Your task to perform on an android device: change keyboard looks Image 0: 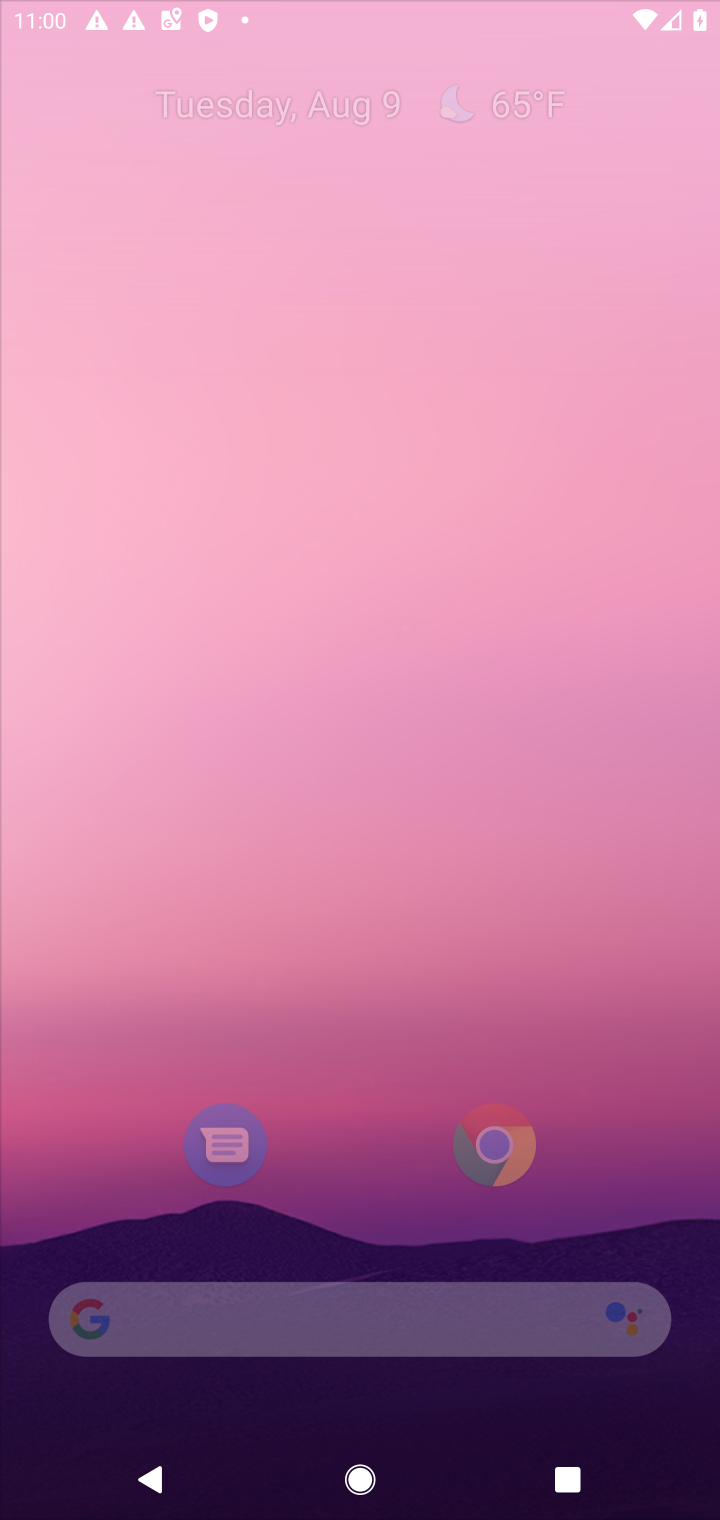
Step 0: press home button
Your task to perform on an android device: change keyboard looks Image 1: 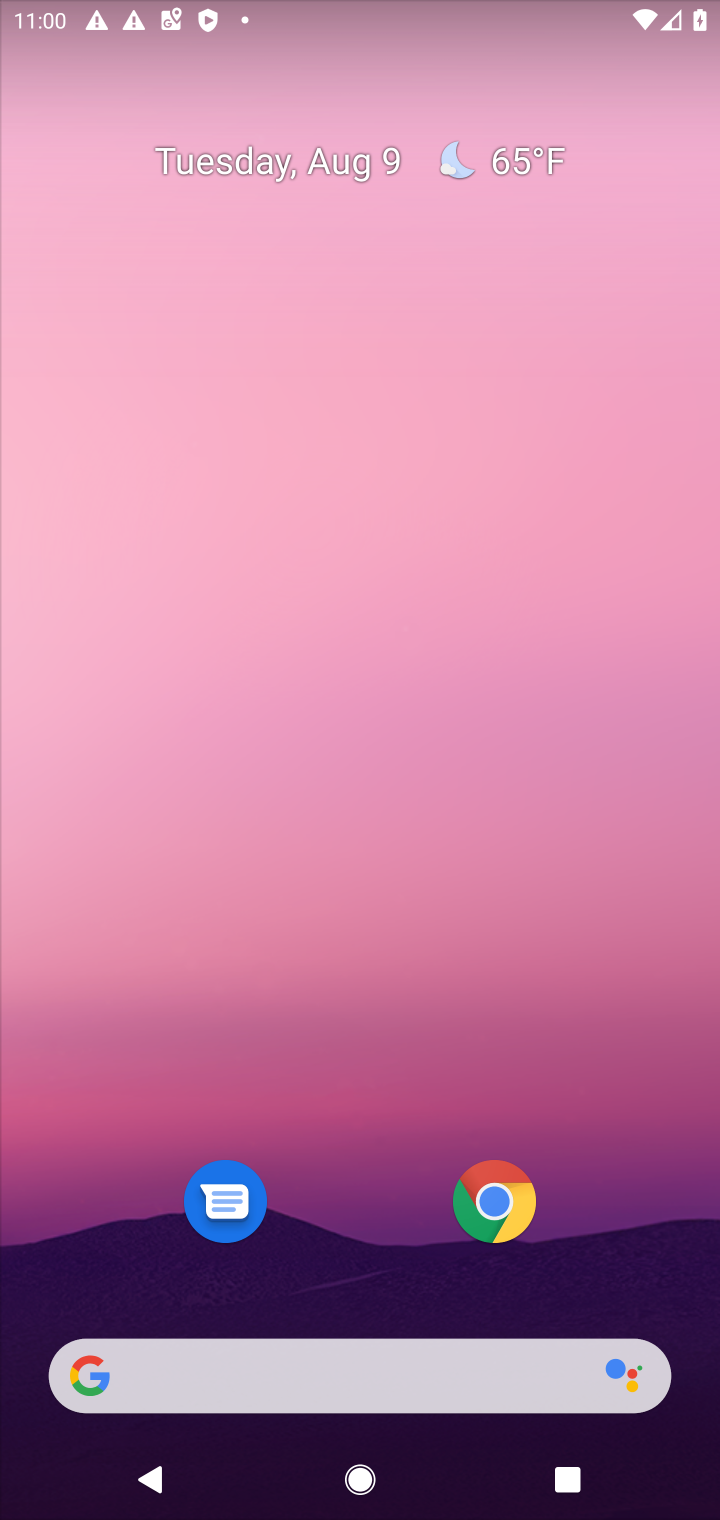
Step 1: drag from (413, 578) to (433, 256)
Your task to perform on an android device: change keyboard looks Image 2: 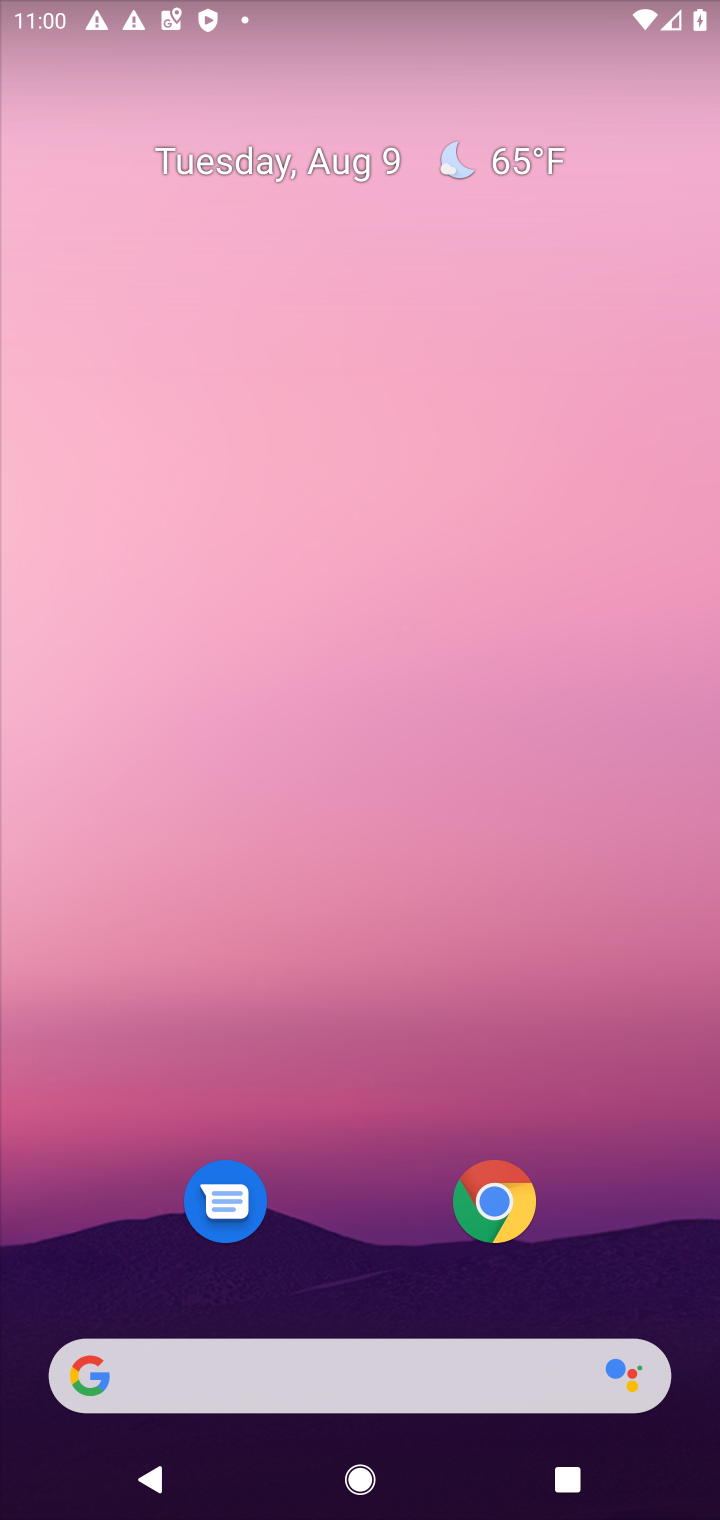
Step 2: drag from (326, 1179) to (517, 9)
Your task to perform on an android device: change keyboard looks Image 3: 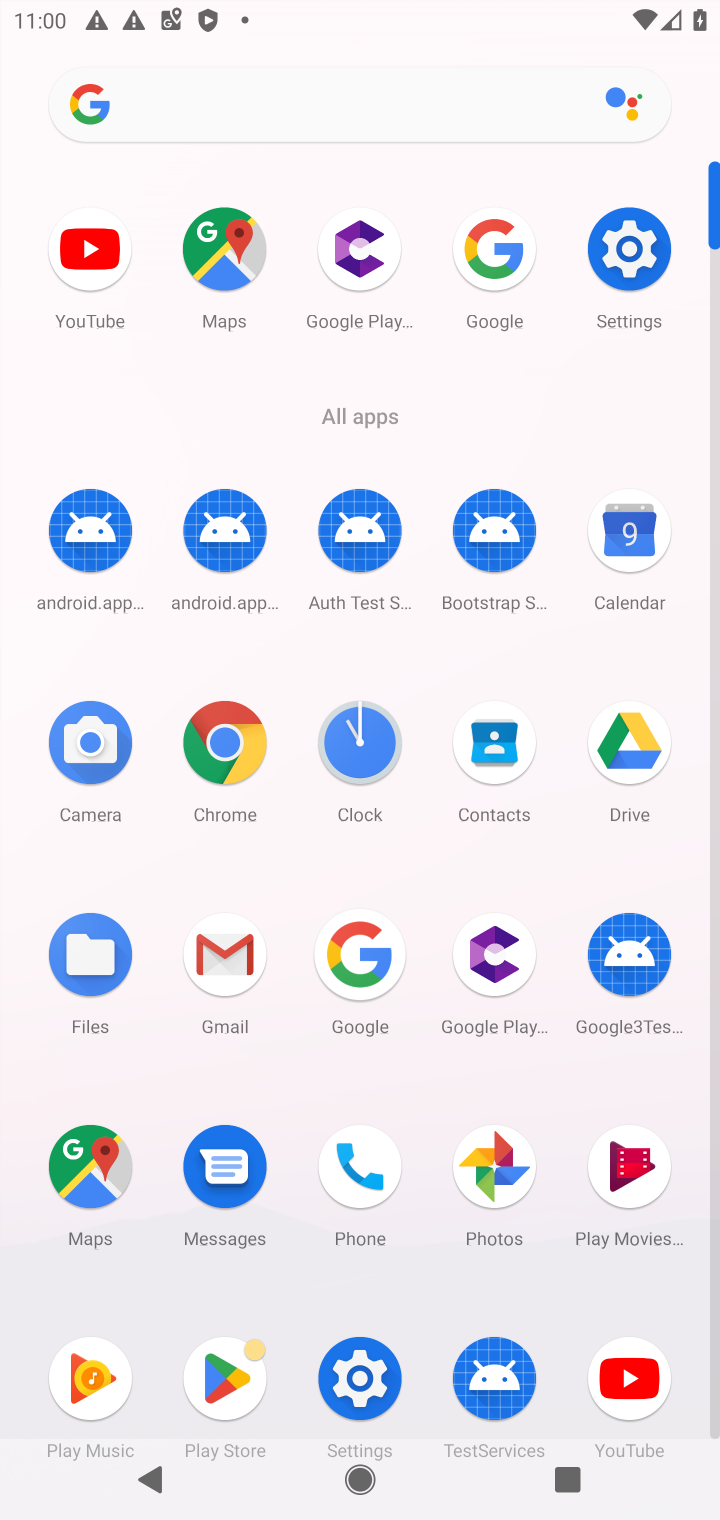
Step 3: click (643, 229)
Your task to perform on an android device: change keyboard looks Image 4: 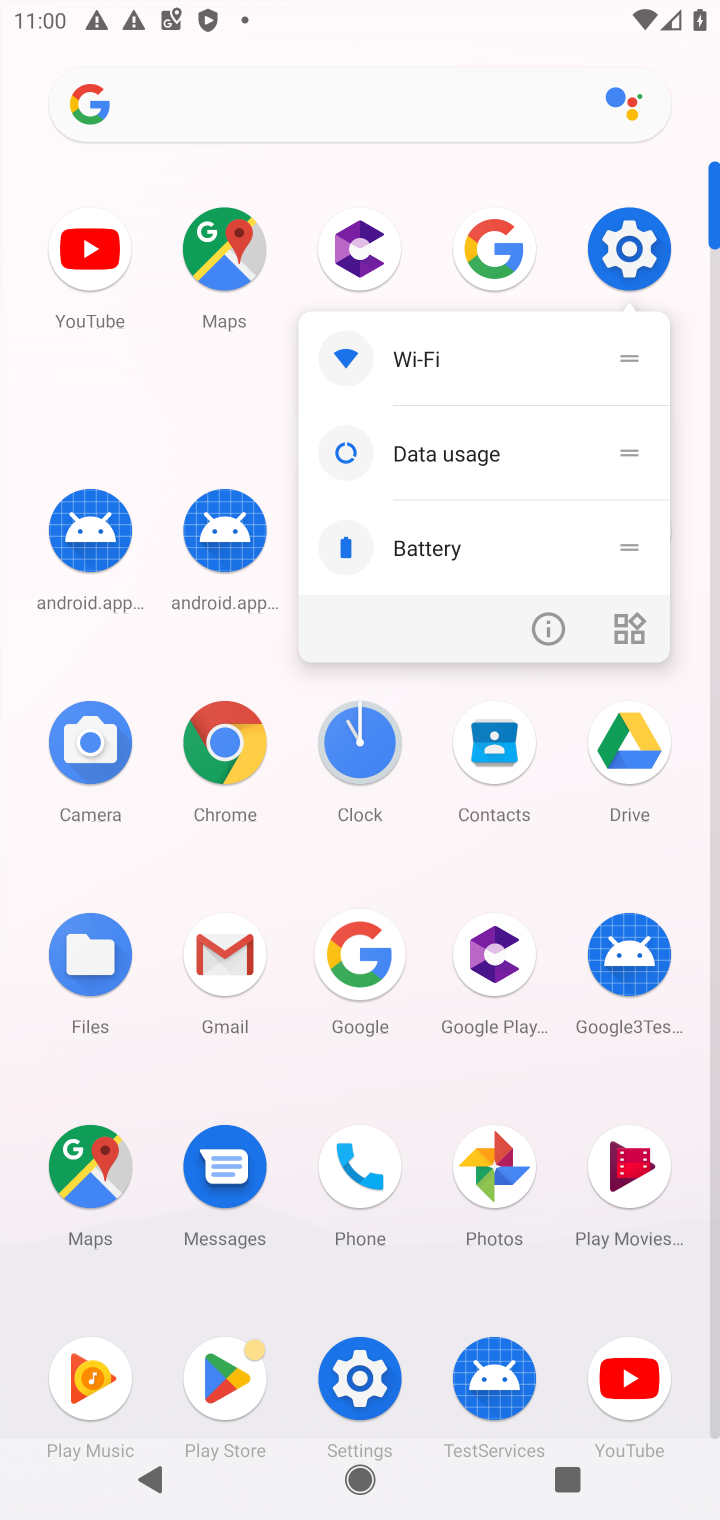
Step 4: click (621, 231)
Your task to perform on an android device: change keyboard looks Image 5: 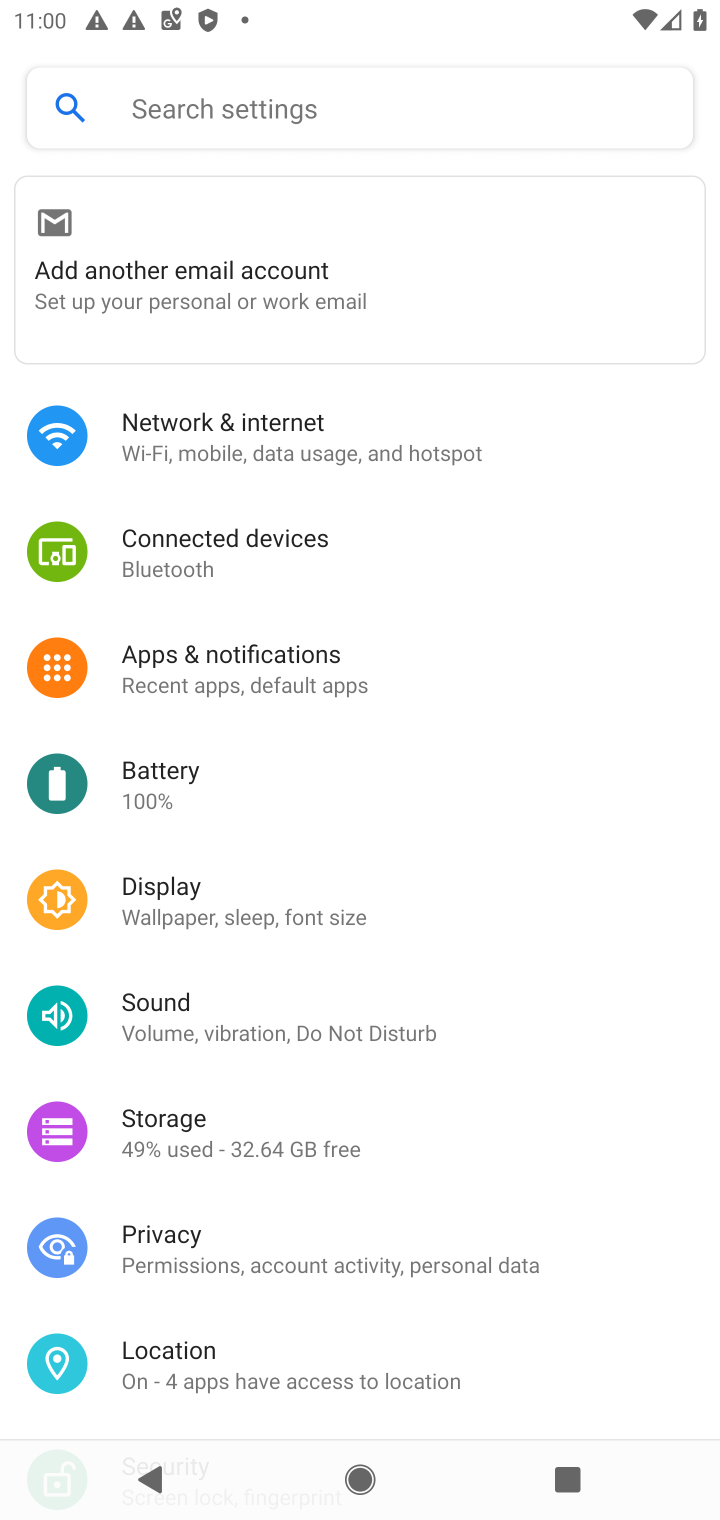
Step 5: drag from (175, 1303) to (297, 607)
Your task to perform on an android device: change keyboard looks Image 6: 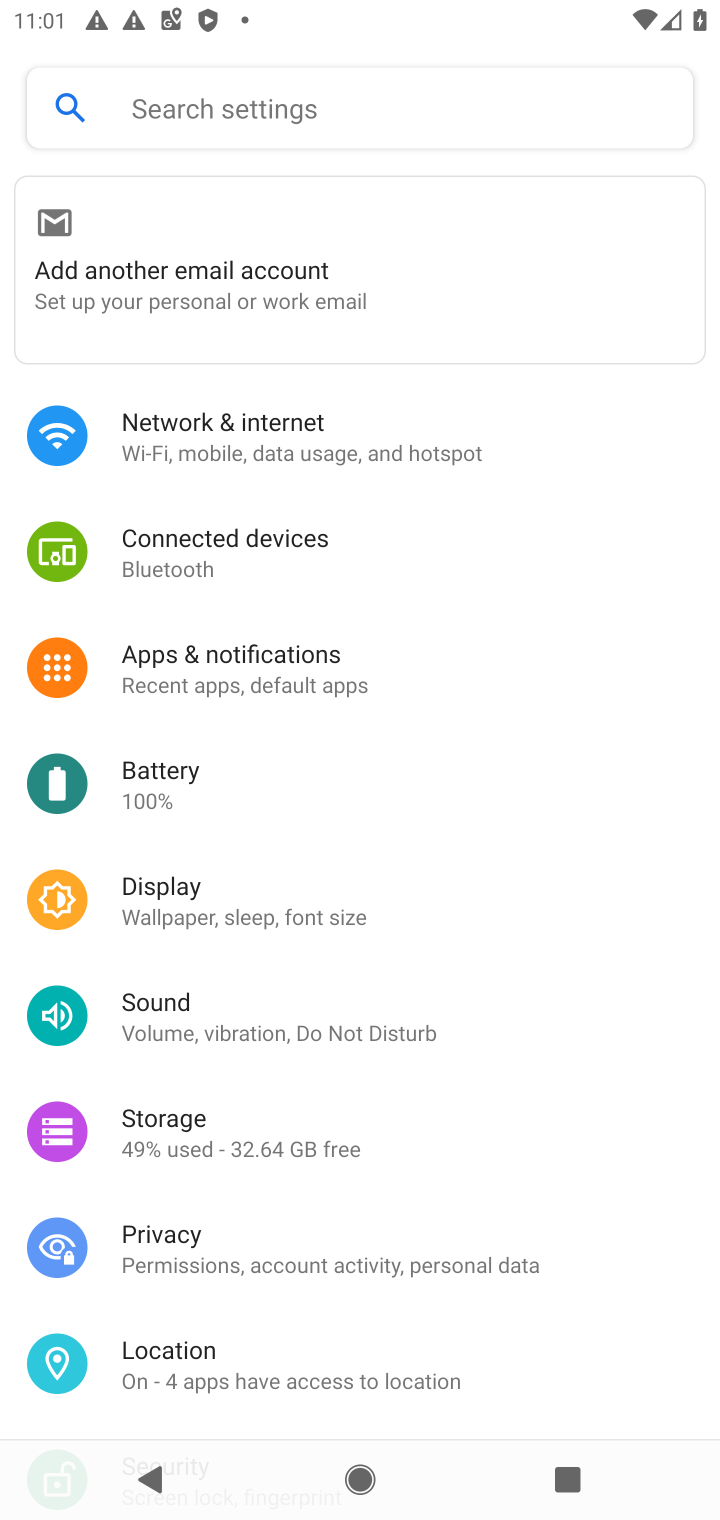
Step 6: drag from (248, 1326) to (316, 550)
Your task to perform on an android device: change keyboard looks Image 7: 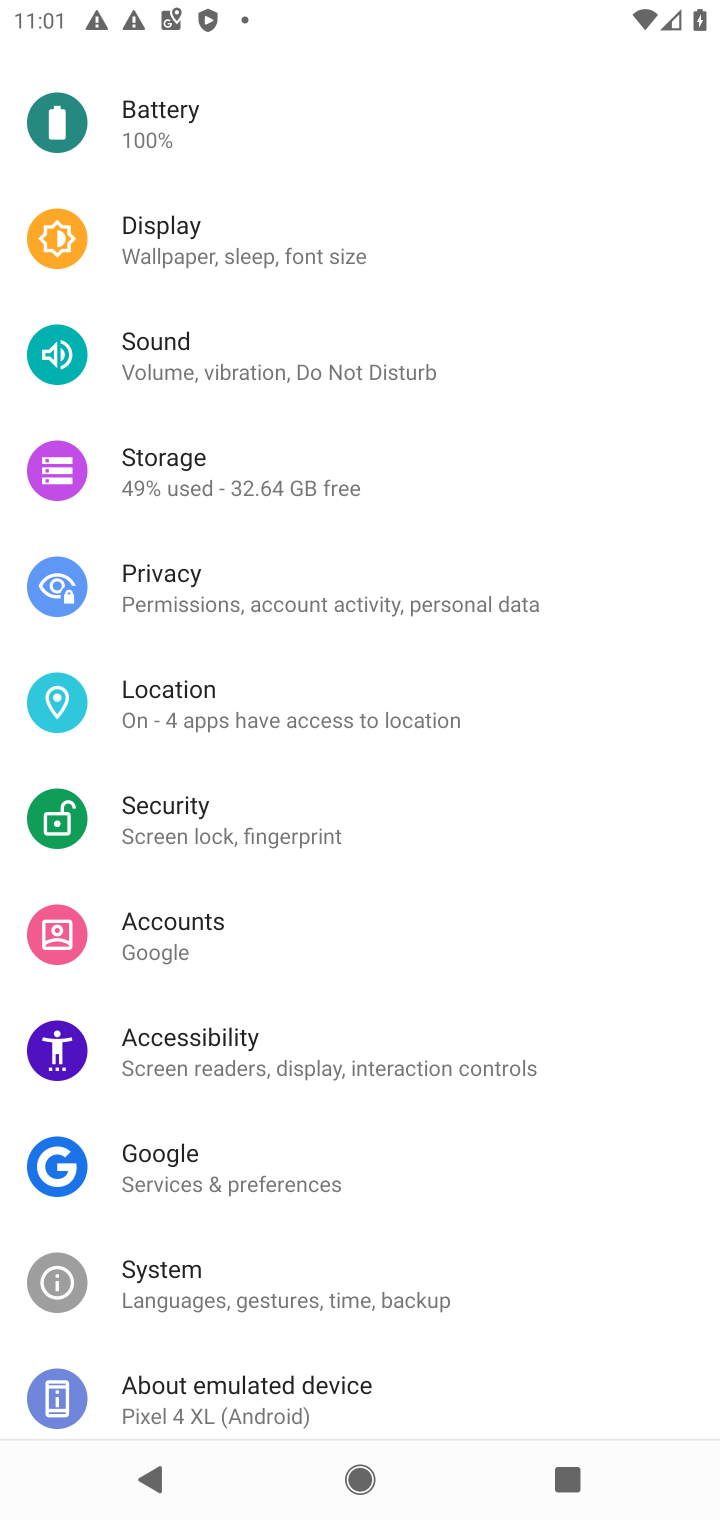
Step 7: click (194, 1285)
Your task to perform on an android device: change keyboard looks Image 8: 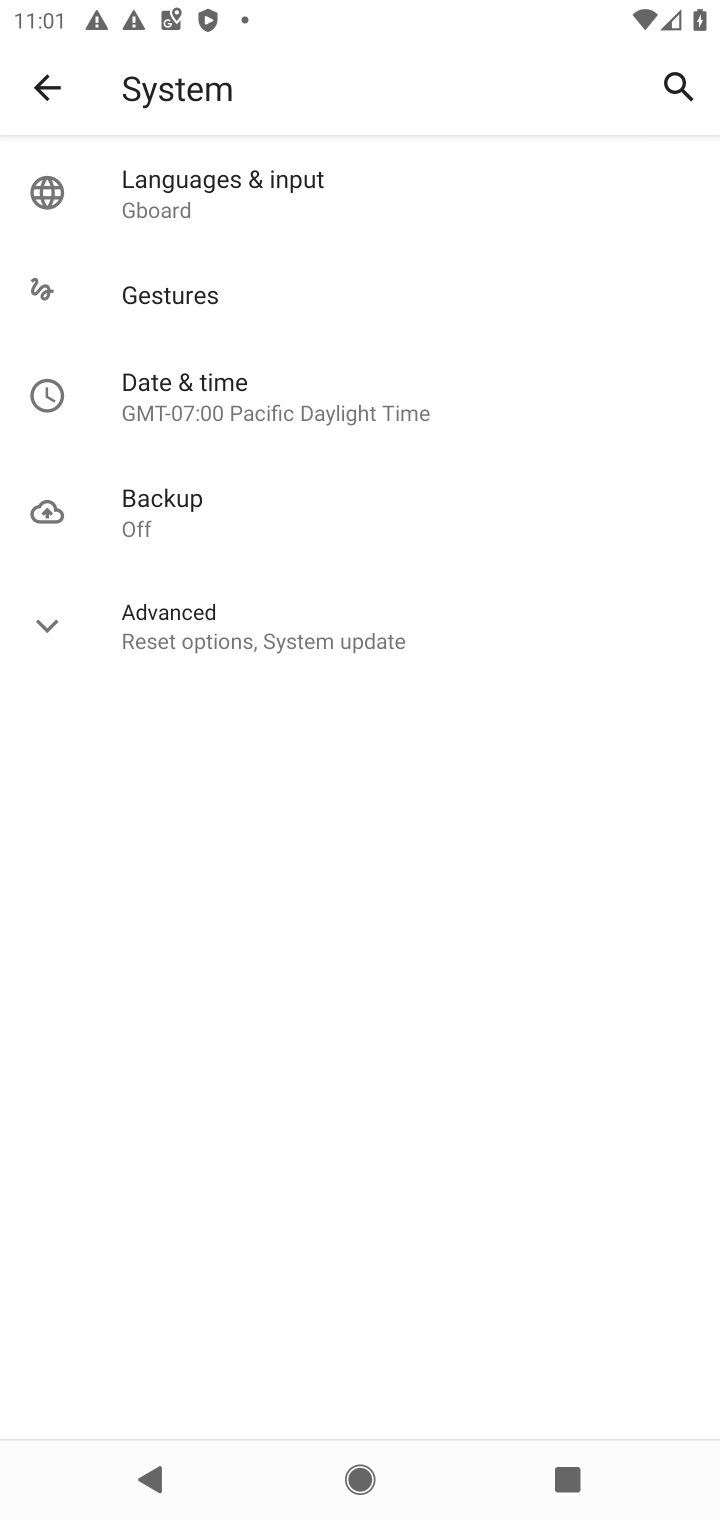
Step 8: click (207, 189)
Your task to perform on an android device: change keyboard looks Image 9: 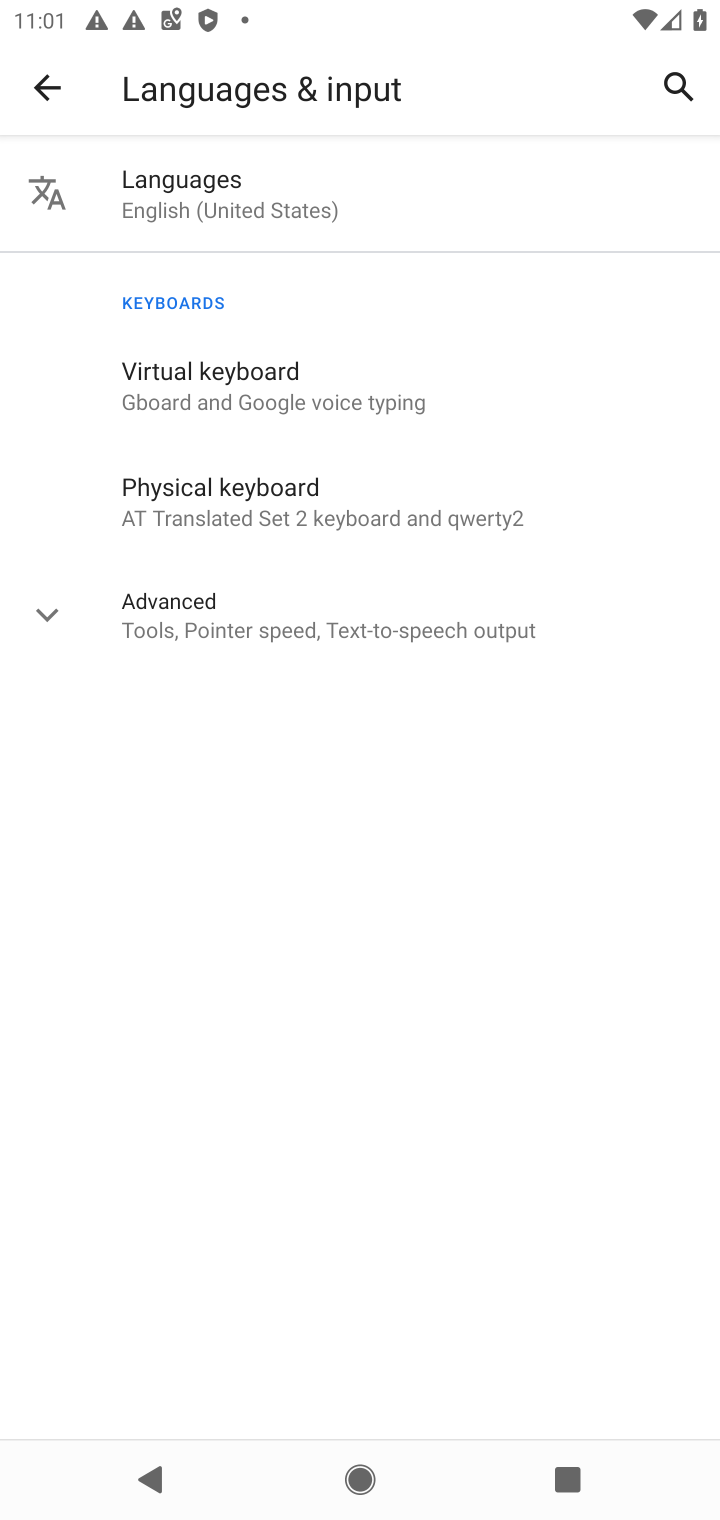
Step 9: click (262, 390)
Your task to perform on an android device: change keyboard looks Image 10: 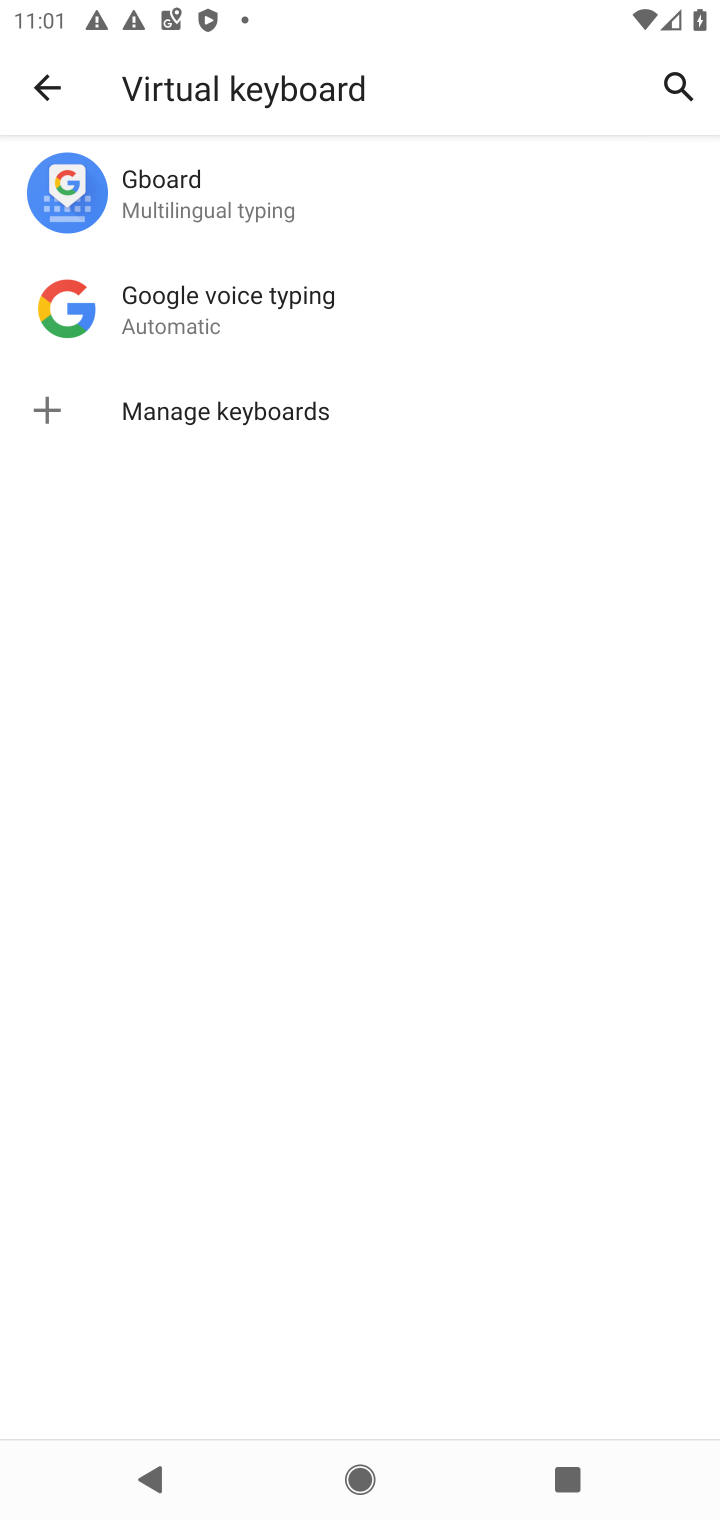
Step 10: click (218, 199)
Your task to perform on an android device: change keyboard looks Image 11: 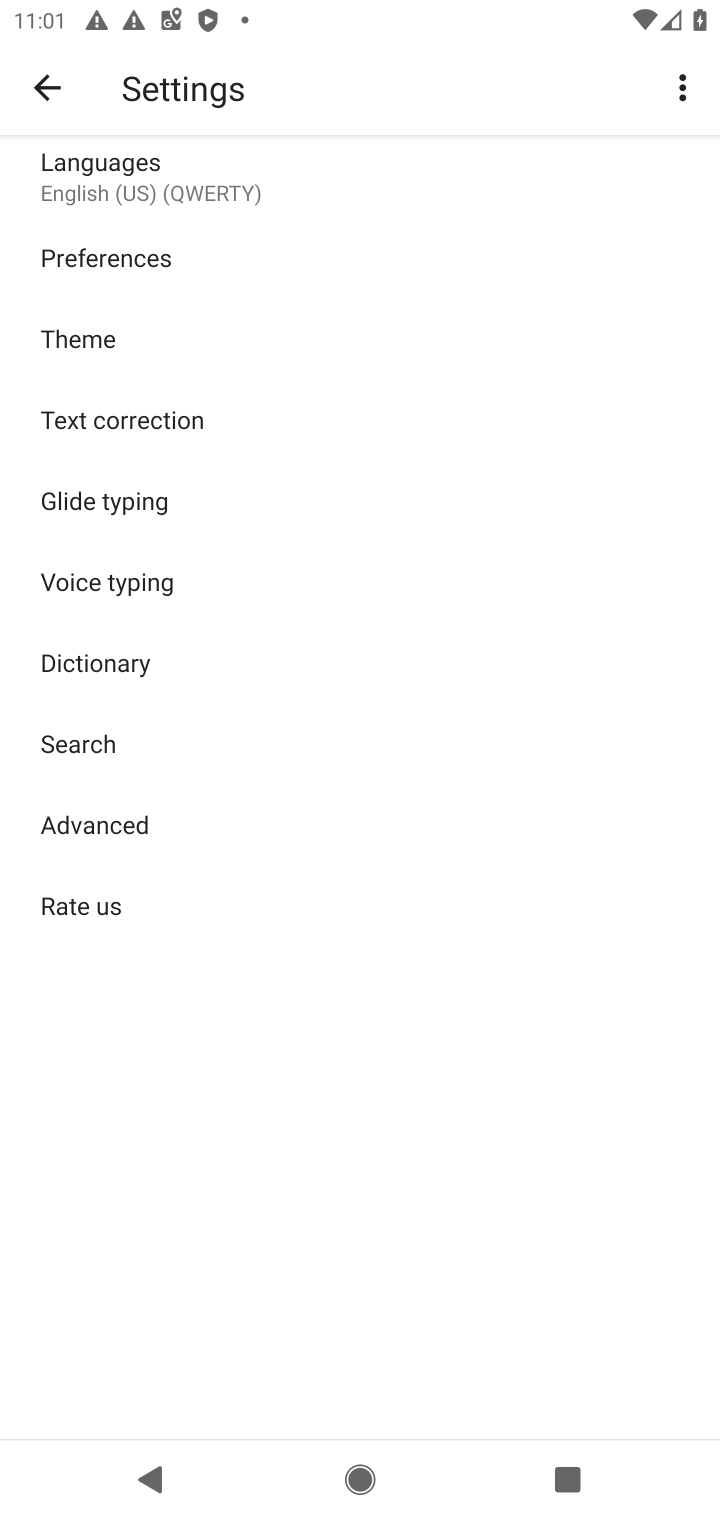
Step 11: click (116, 344)
Your task to perform on an android device: change keyboard looks Image 12: 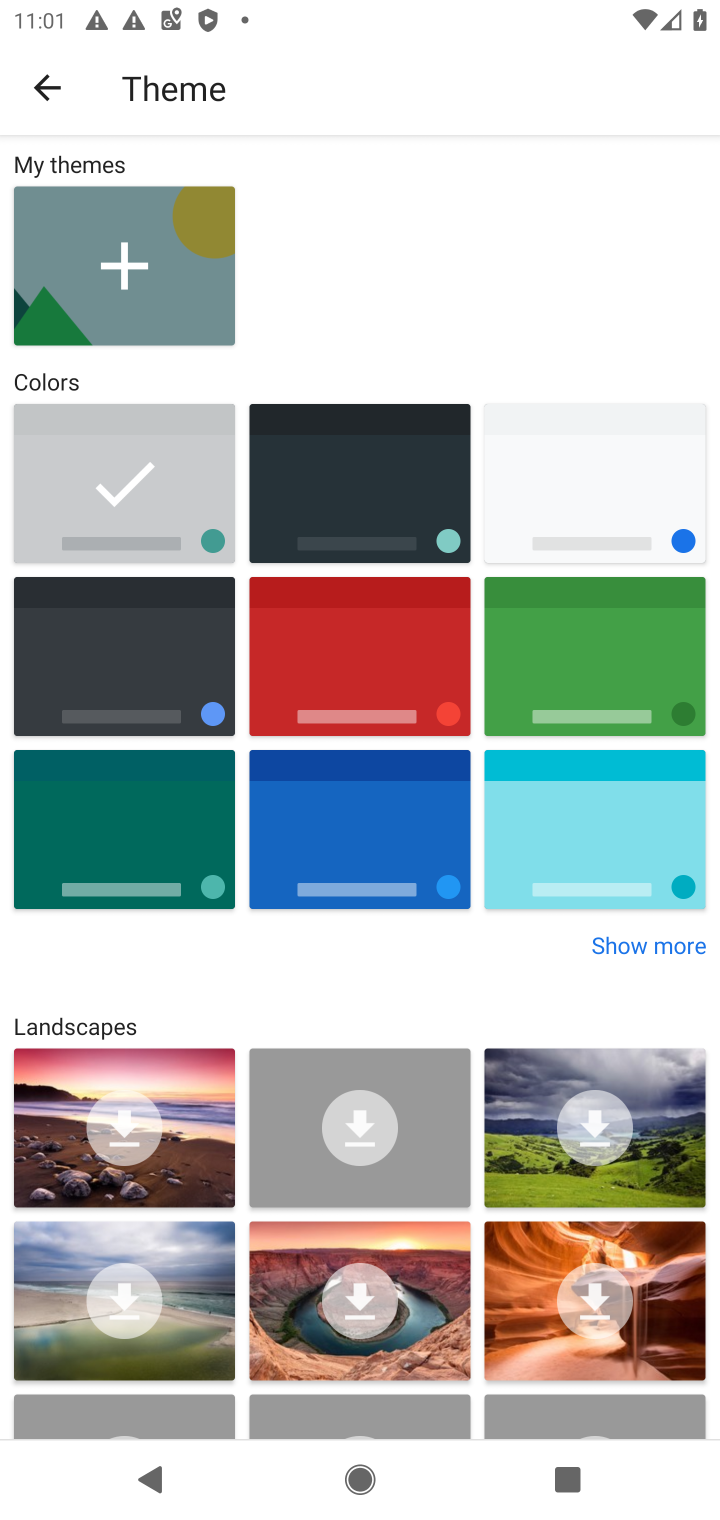
Step 12: click (378, 687)
Your task to perform on an android device: change keyboard looks Image 13: 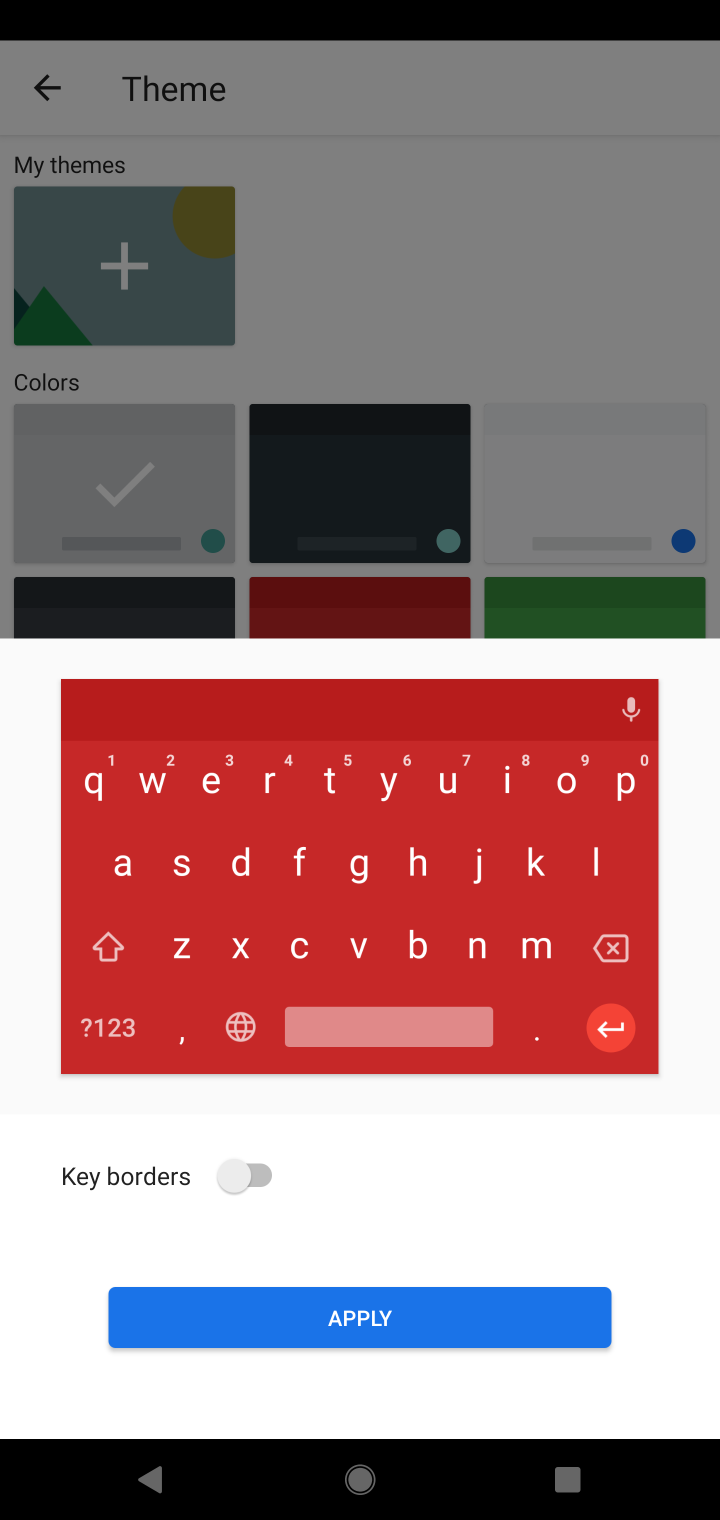
Step 13: click (399, 1327)
Your task to perform on an android device: change keyboard looks Image 14: 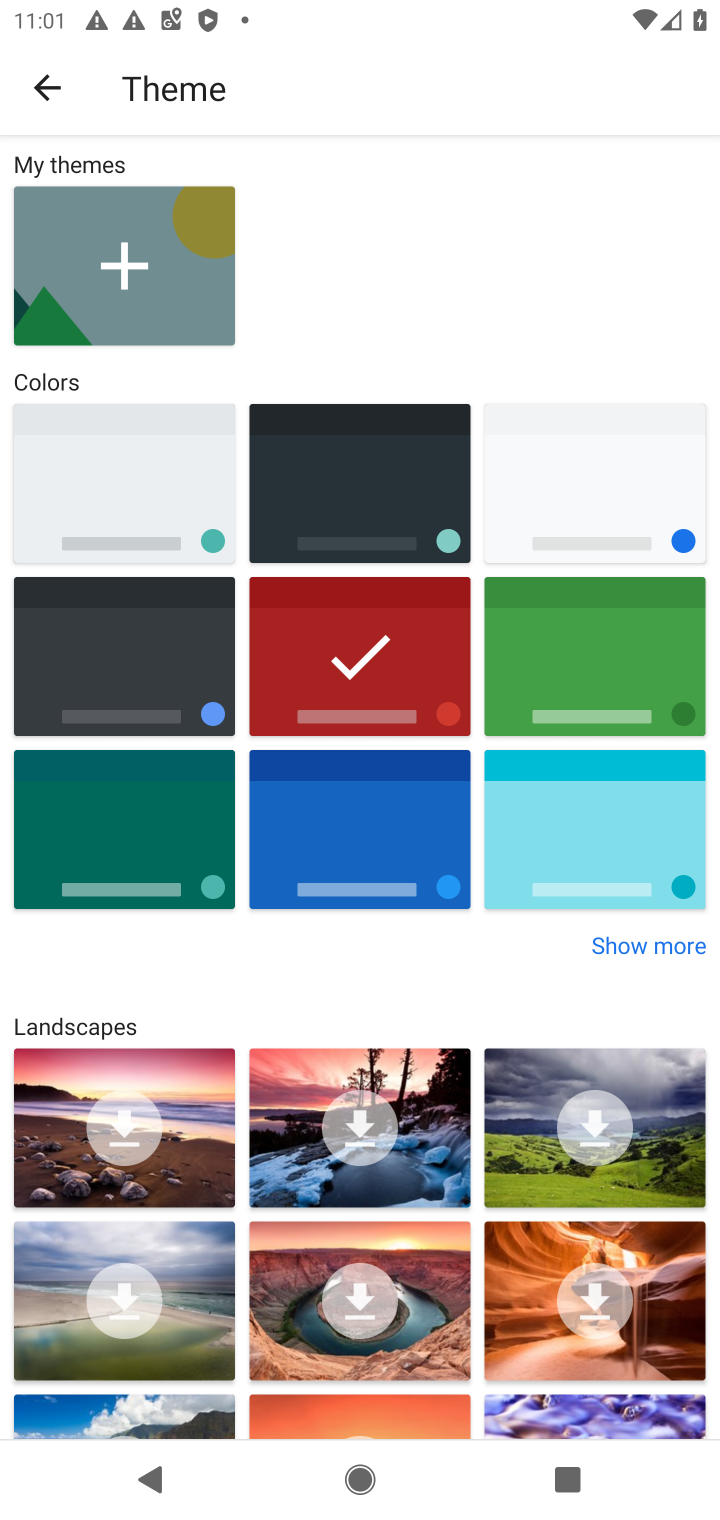
Step 14: task complete